Your task to perform on an android device: Open the phone app and click the voicemail tab. Image 0: 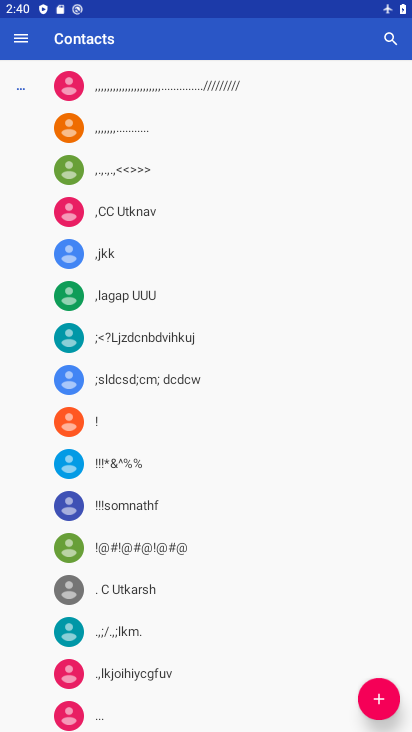
Step 0: press home button
Your task to perform on an android device: Open the phone app and click the voicemail tab. Image 1: 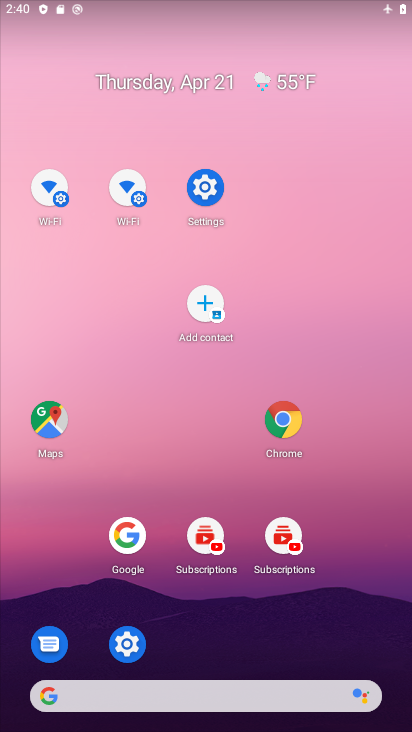
Step 1: drag from (346, 655) to (227, 145)
Your task to perform on an android device: Open the phone app and click the voicemail tab. Image 2: 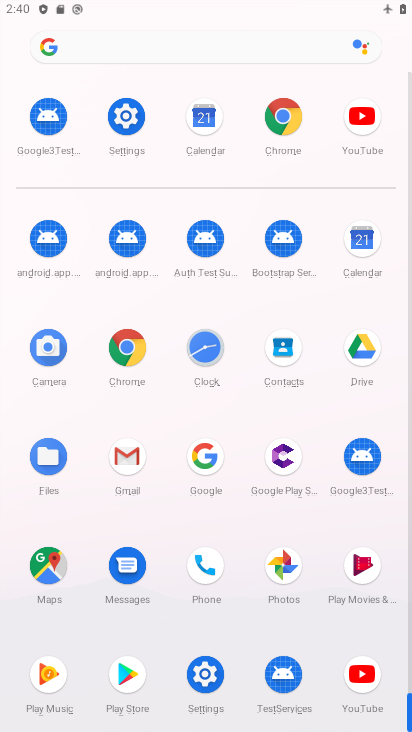
Step 2: drag from (294, 581) to (226, 92)
Your task to perform on an android device: Open the phone app and click the voicemail tab. Image 3: 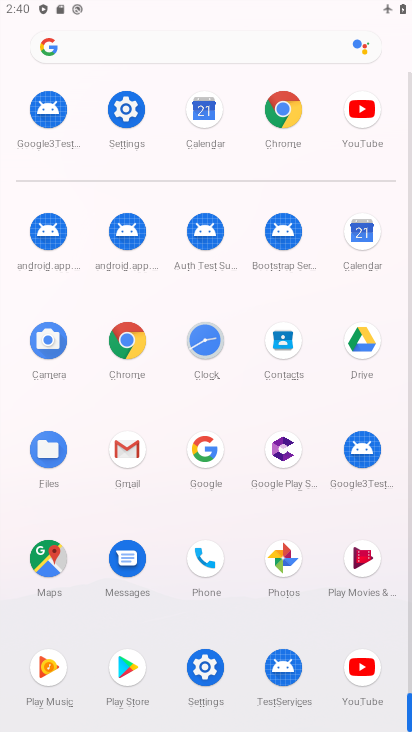
Step 3: click (202, 557)
Your task to perform on an android device: Open the phone app and click the voicemail tab. Image 4: 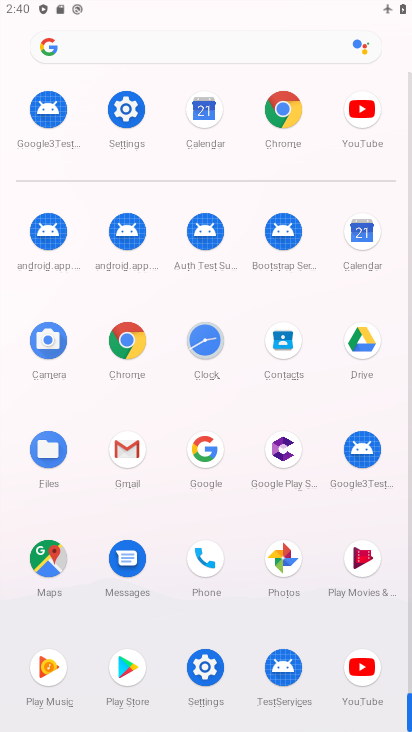
Step 4: click (202, 549)
Your task to perform on an android device: Open the phone app and click the voicemail tab. Image 5: 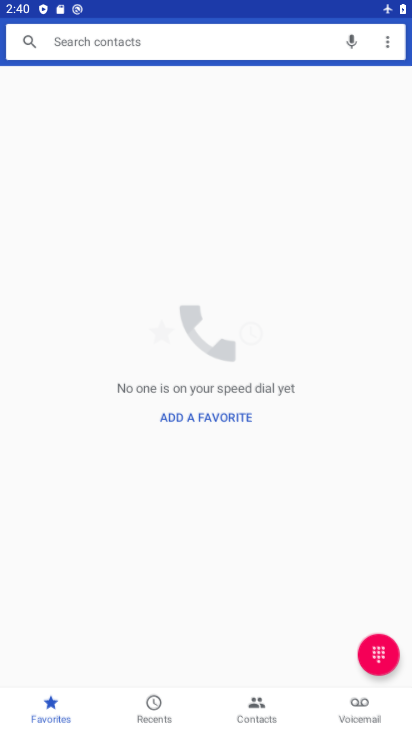
Step 5: click (194, 552)
Your task to perform on an android device: Open the phone app and click the voicemail tab. Image 6: 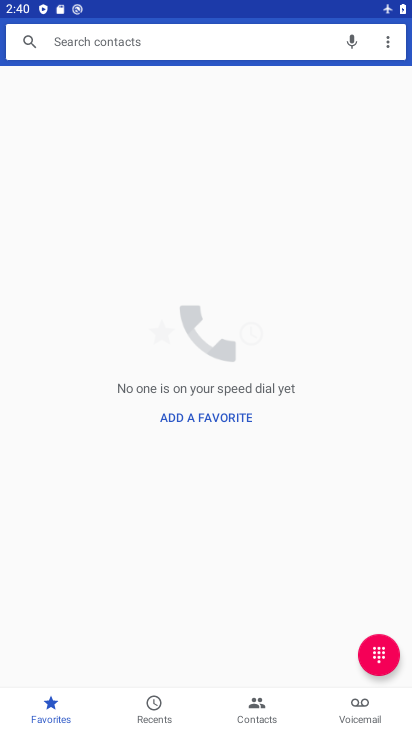
Step 6: click (194, 552)
Your task to perform on an android device: Open the phone app and click the voicemail tab. Image 7: 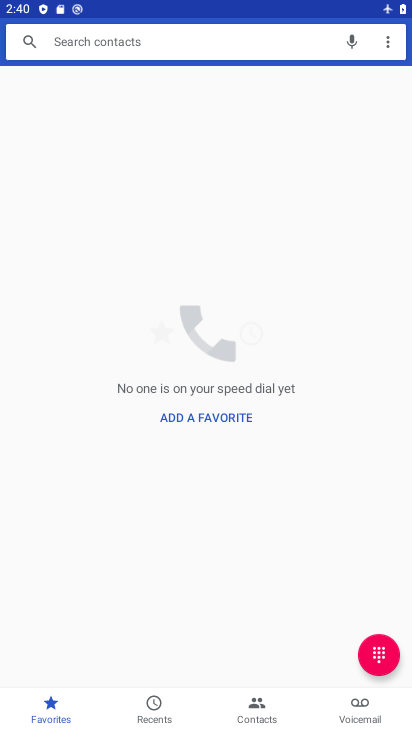
Step 7: click (363, 710)
Your task to perform on an android device: Open the phone app and click the voicemail tab. Image 8: 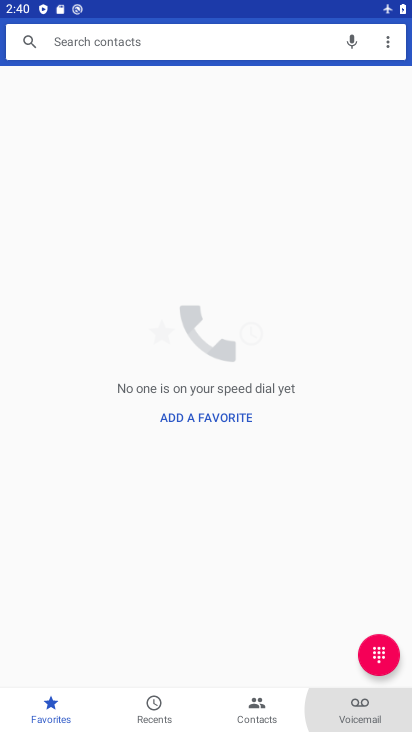
Step 8: click (362, 714)
Your task to perform on an android device: Open the phone app and click the voicemail tab. Image 9: 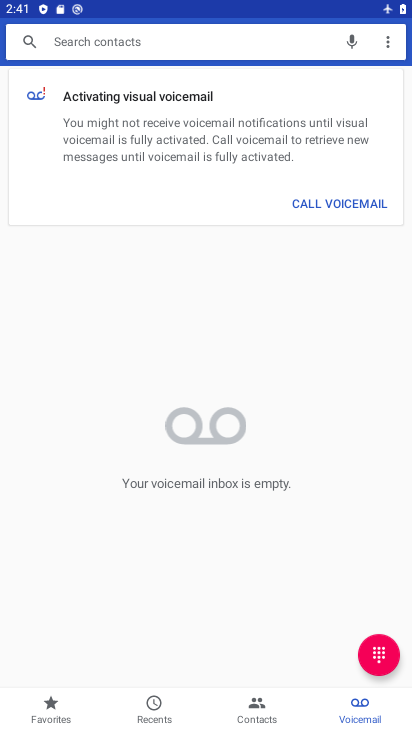
Step 9: task complete